Your task to perform on an android device: turn off javascript in the chrome app Image 0: 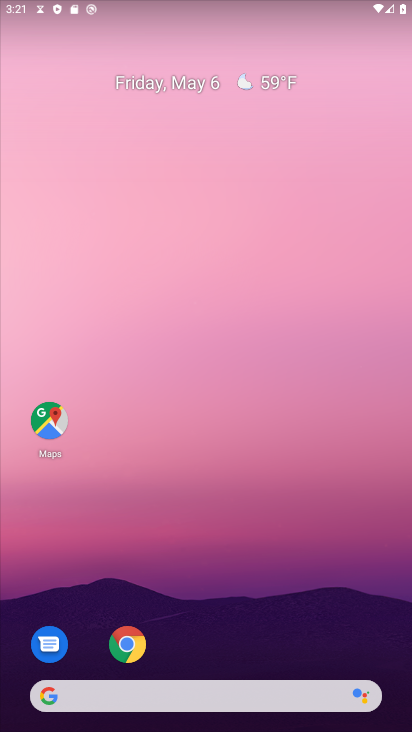
Step 0: click (128, 643)
Your task to perform on an android device: turn off javascript in the chrome app Image 1: 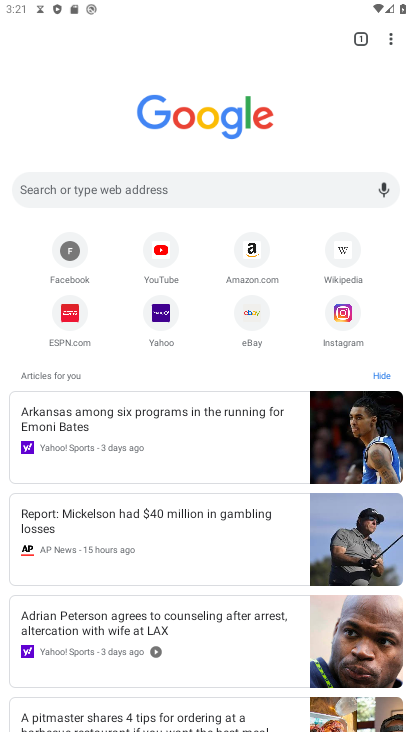
Step 1: click (393, 36)
Your task to perform on an android device: turn off javascript in the chrome app Image 2: 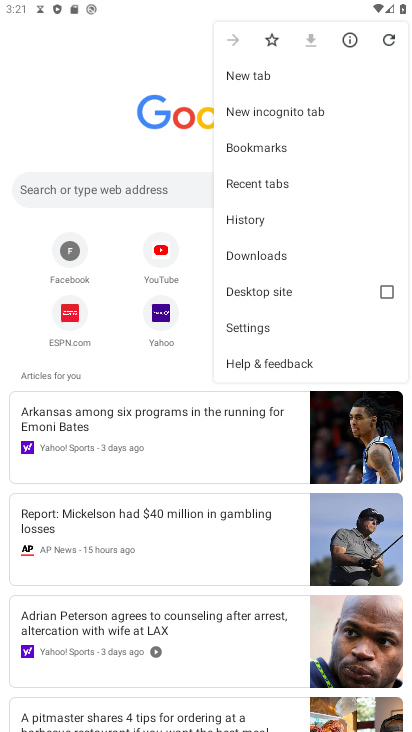
Step 2: click (261, 327)
Your task to perform on an android device: turn off javascript in the chrome app Image 3: 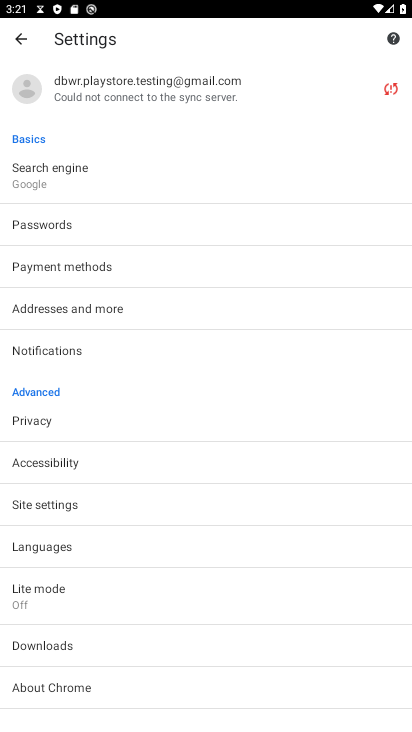
Step 3: click (57, 510)
Your task to perform on an android device: turn off javascript in the chrome app Image 4: 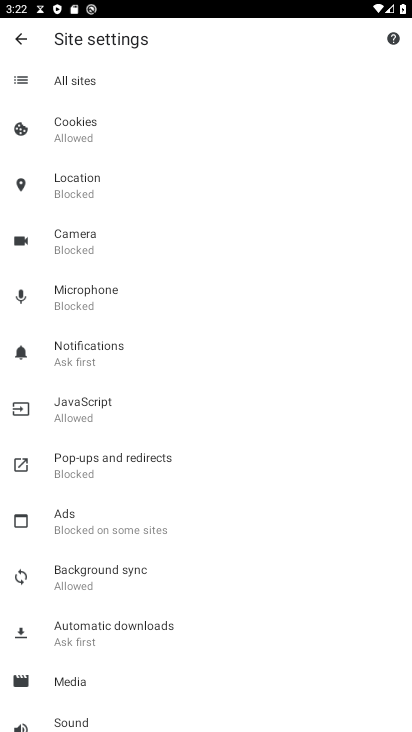
Step 4: click (78, 408)
Your task to perform on an android device: turn off javascript in the chrome app Image 5: 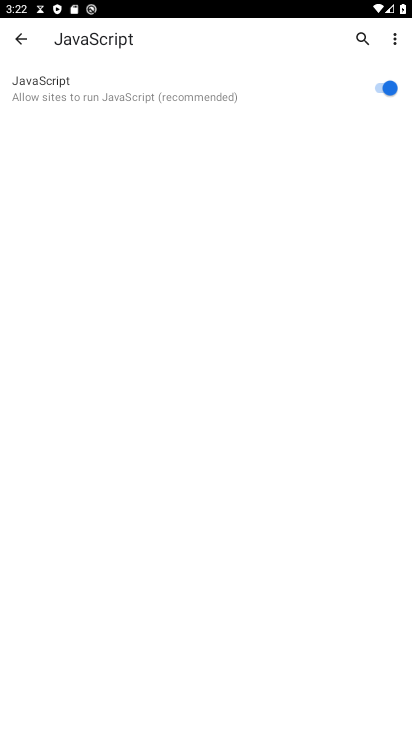
Step 5: click (385, 87)
Your task to perform on an android device: turn off javascript in the chrome app Image 6: 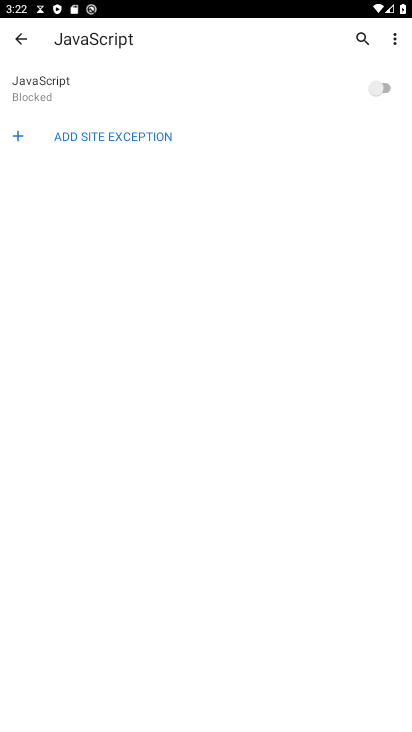
Step 6: task complete